Your task to perform on an android device: change the clock display to digital Image 0: 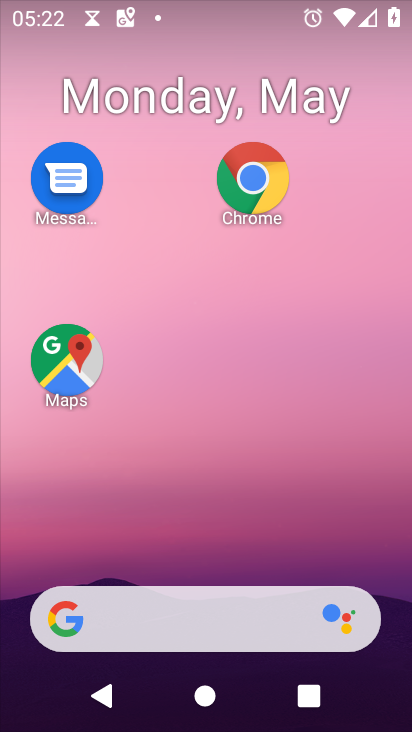
Step 0: drag from (192, 556) to (261, 4)
Your task to perform on an android device: change the clock display to digital Image 1: 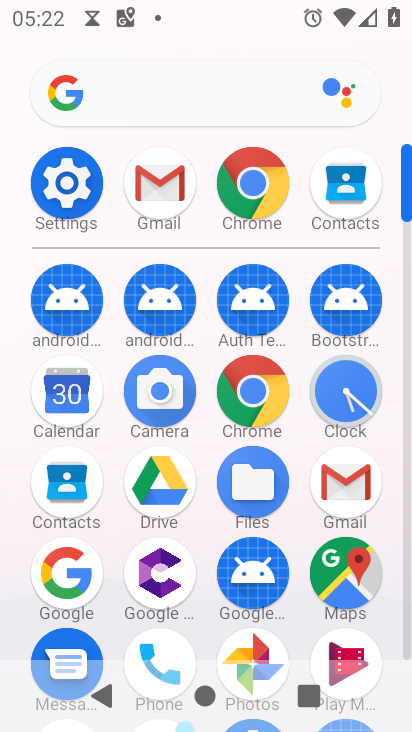
Step 1: click (352, 403)
Your task to perform on an android device: change the clock display to digital Image 2: 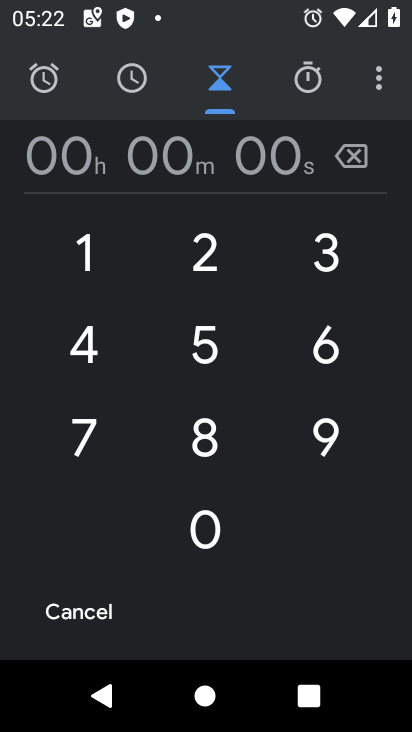
Step 2: click (374, 79)
Your task to perform on an android device: change the clock display to digital Image 3: 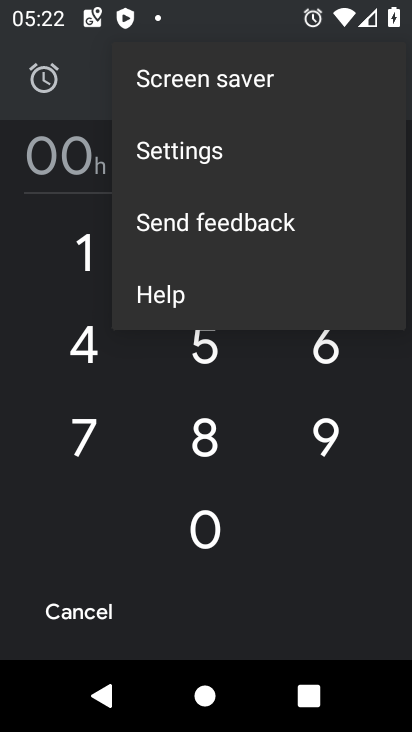
Step 3: click (184, 158)
Your task to perform on an android device: change the clock display to digital Image 4: 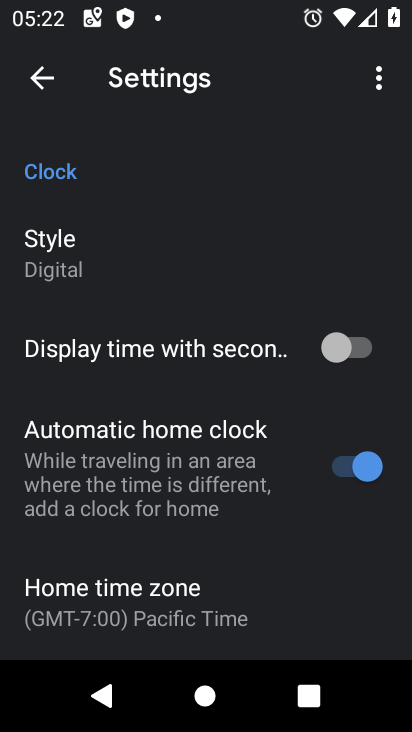
Step 4: task complete